Your task to perform on an android device: What's on my calendar today? Image 0: 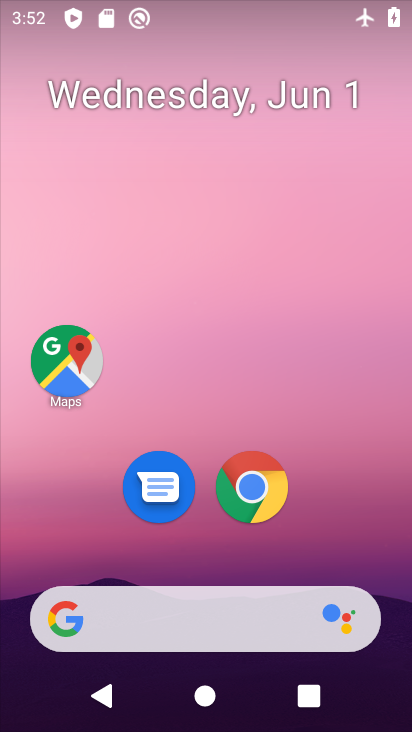
Step 0: drag from (214, 595) to (201, 134)
Your task to perform on an android device: What's on my calendar today? Image 1: 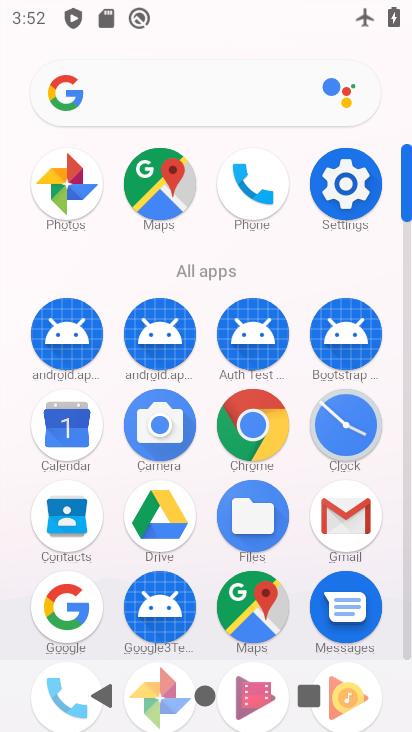
Step 1: click (99, 419)
Your task to perform on an android device: What's on my calendar today? Image 2: 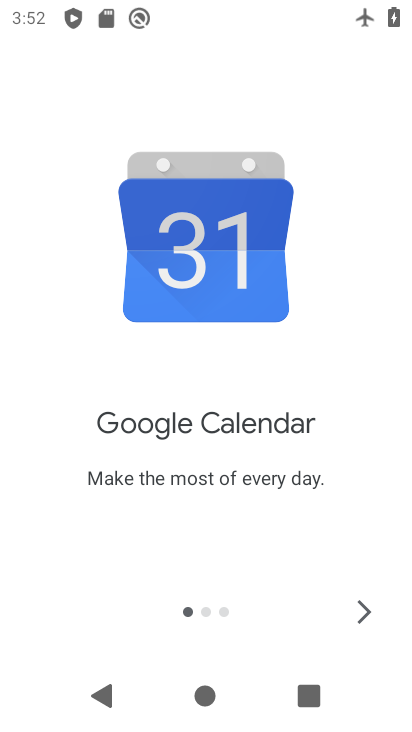
Step 2: click (356, 618)
Your task to perform on an android device: What's on my calendar today? Image 3: 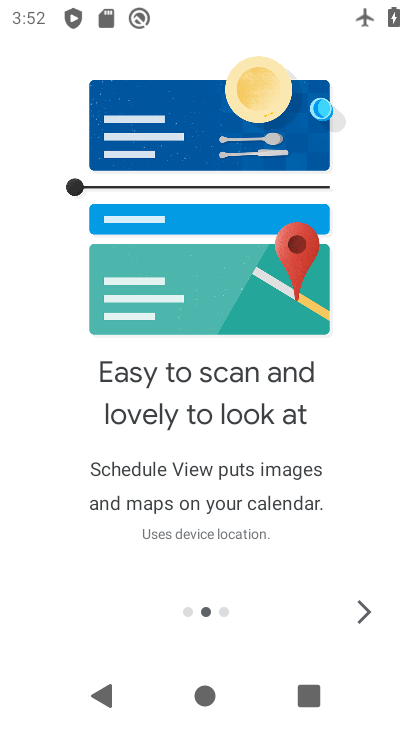
Step 3: click (368, 605)
Your task to perform on an android device: What's on my calendar today? Image 4: 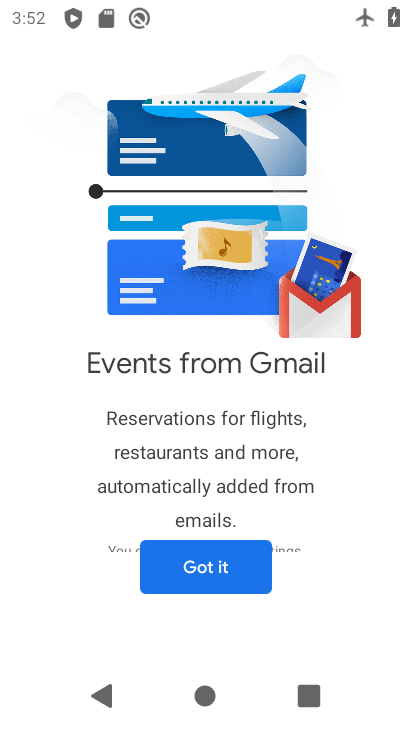
Step 4: click (245, 572)
Your task to perform on an android device: What's on my calendar today? Image 5: 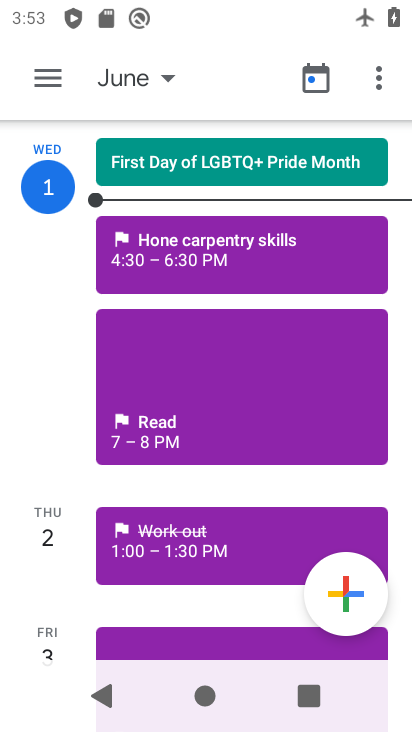
Step 5: task complete